Your task to perform on an android device: uninstall "Skype" Image 0: 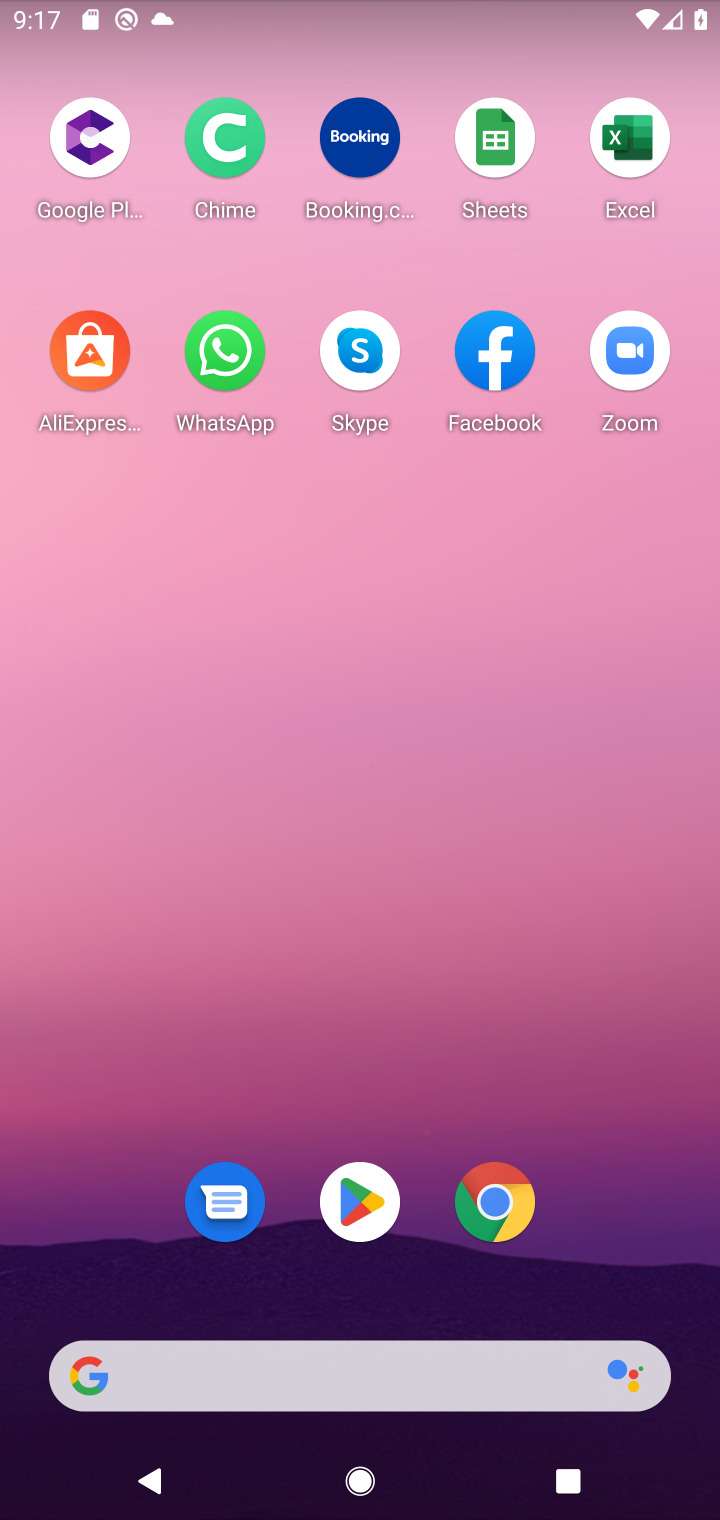
Step 0: press home button
Your task to perform on an android device: uninstall "Skype" Image 1: 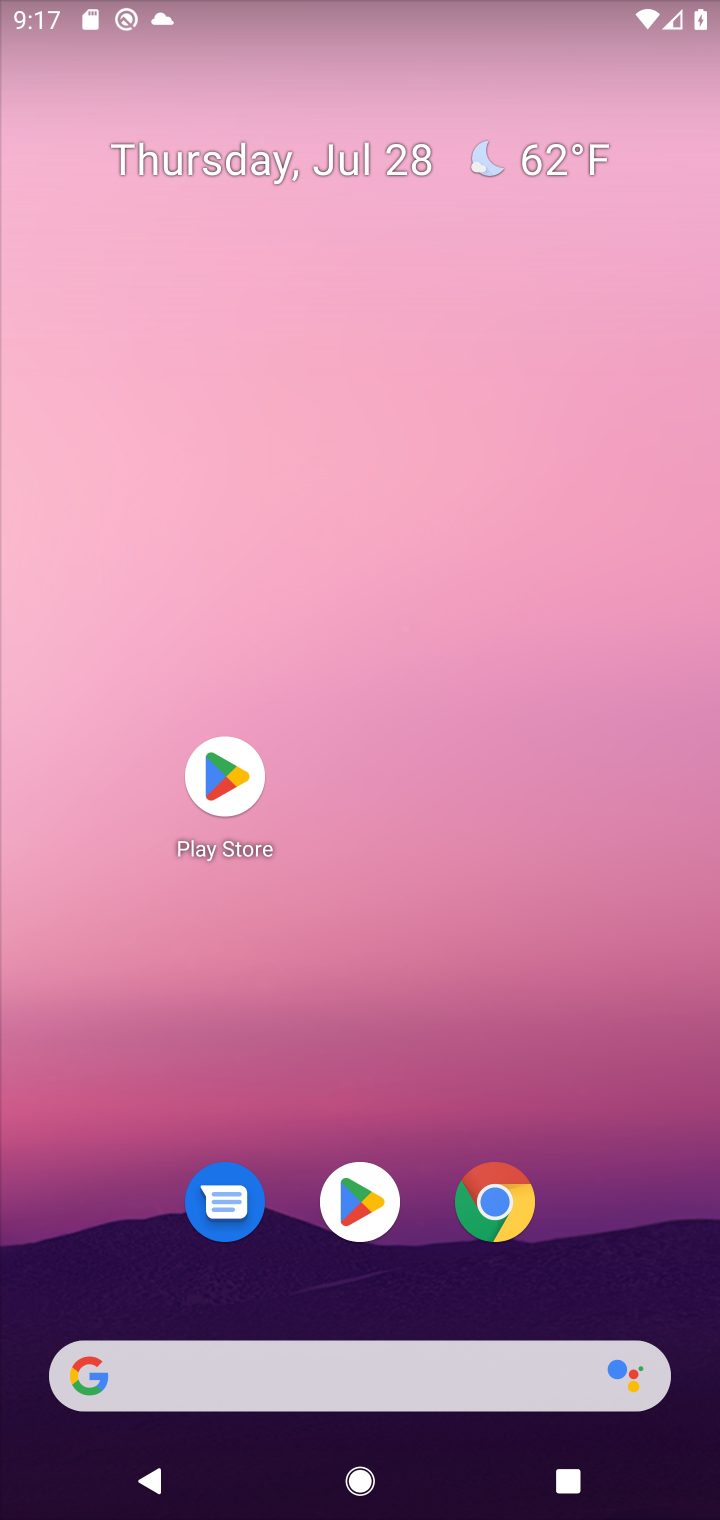
Step 1: click (351, 1202)
Your task to perform on an android device: uninstall "Skype" Image 2: 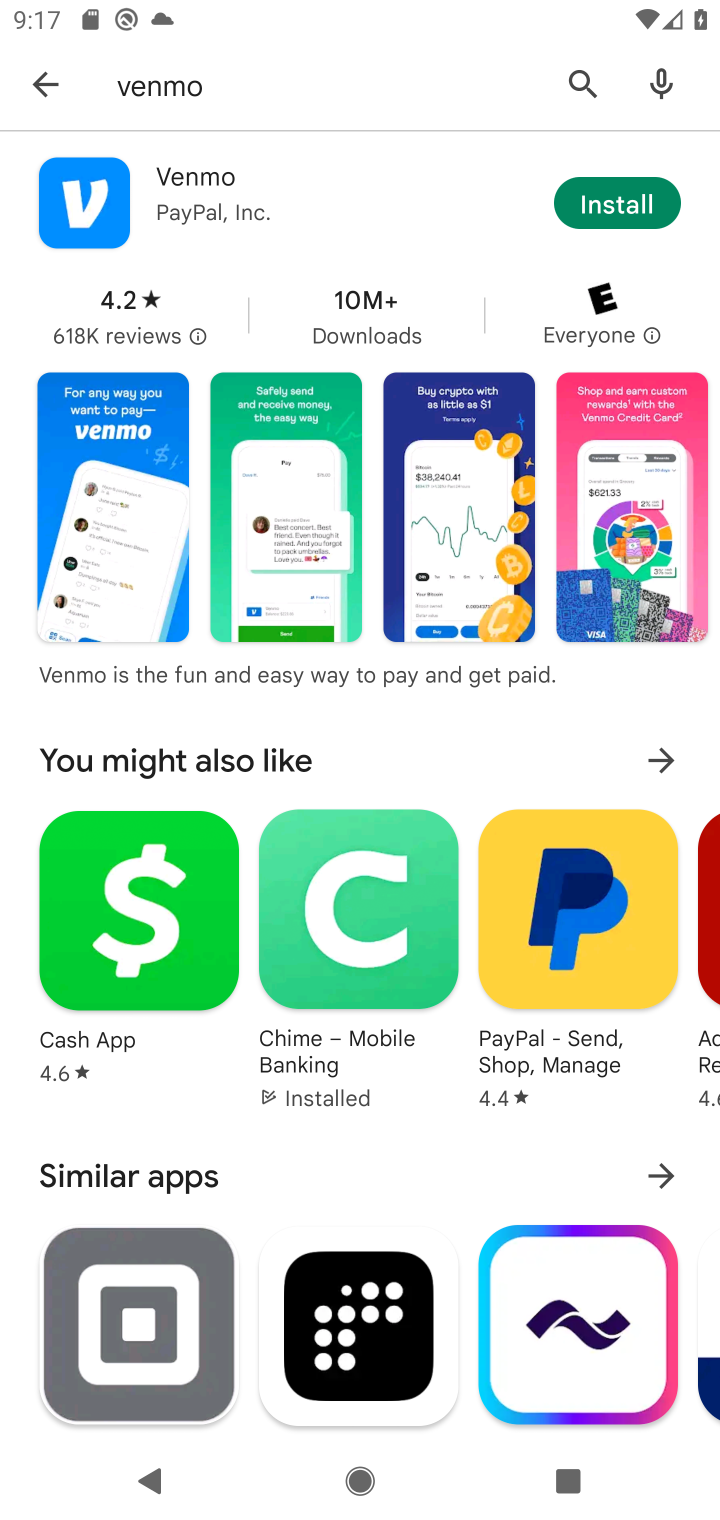
Step 2: click (572, 71)
Your task to perform on an android device: uninstall "Skype" Image 3: 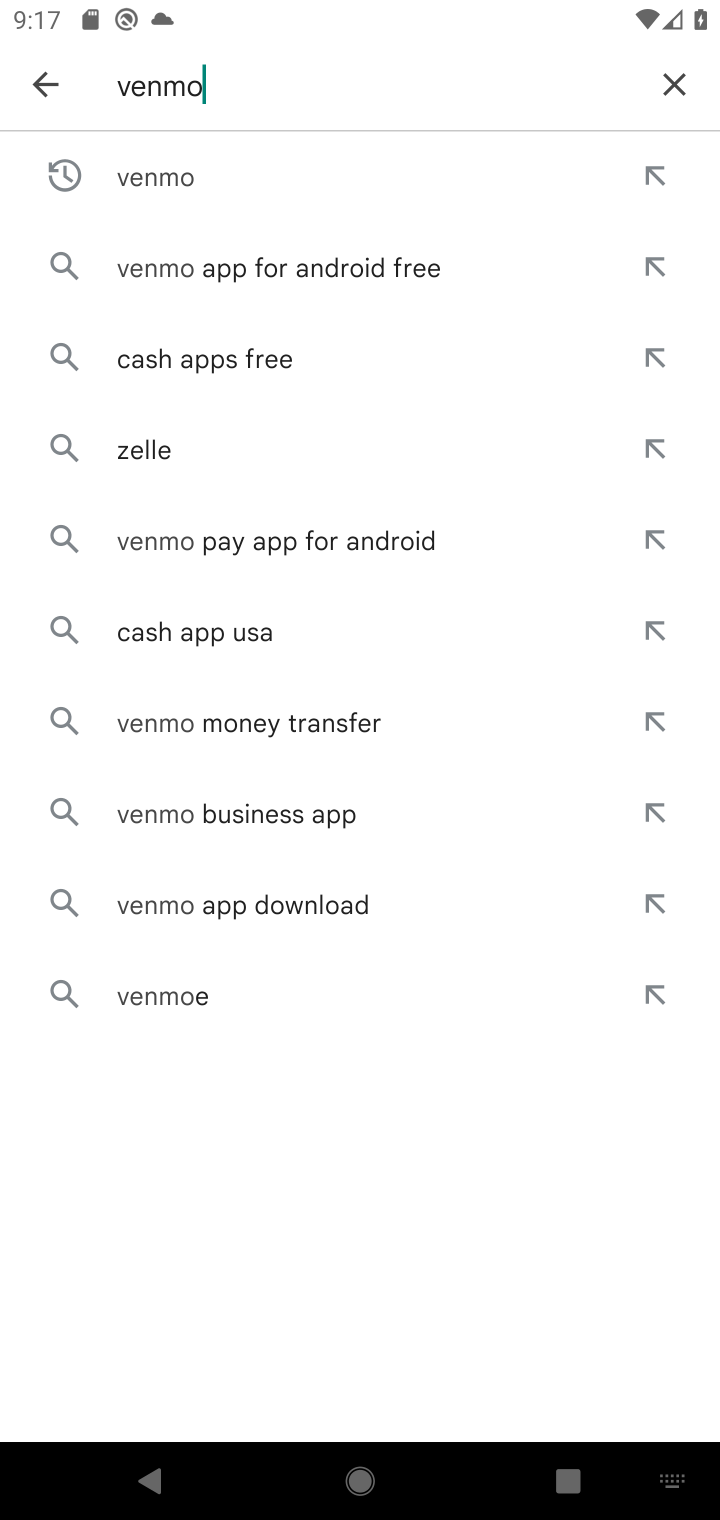
Step 3: click (668, 76)
Your task to perform on an android device: uninstall "Skype" Image 4: 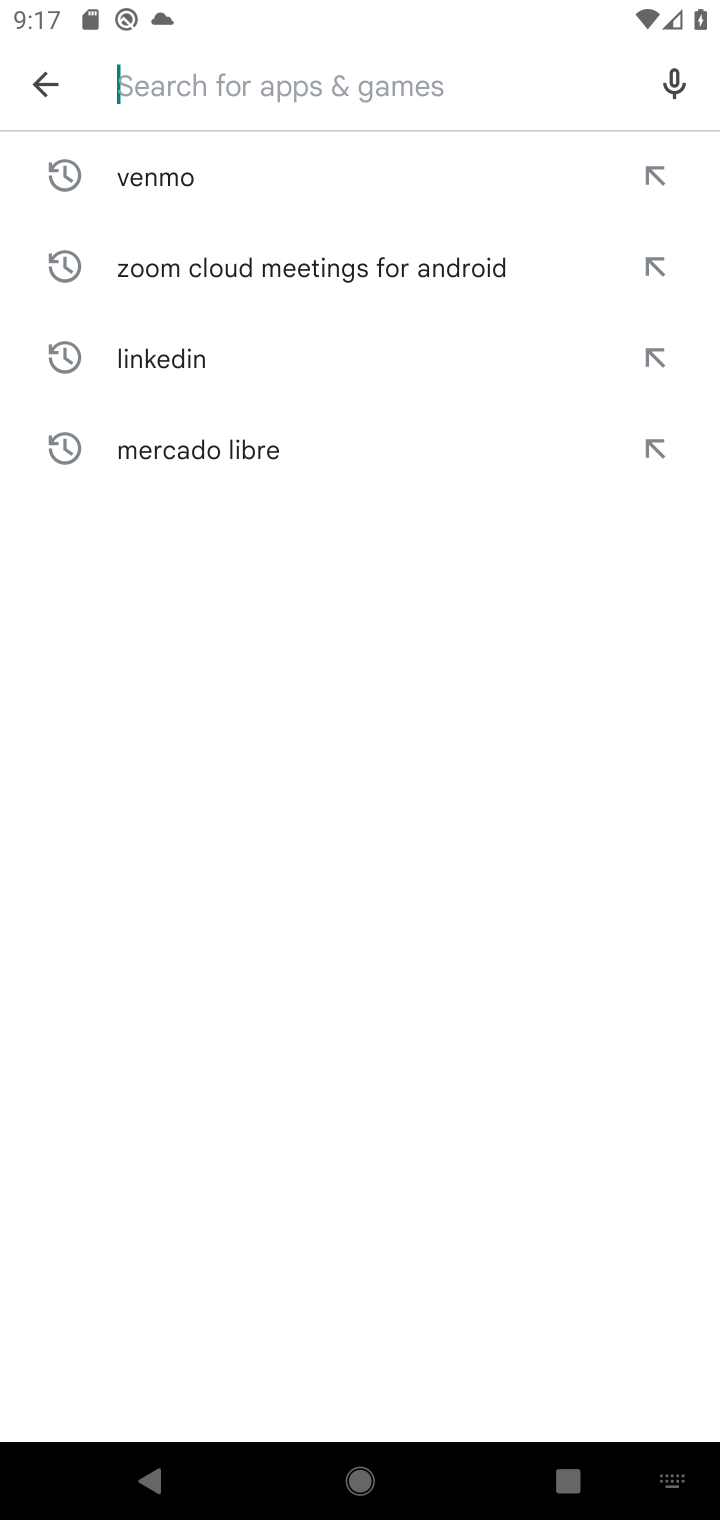
Step 4: click (289, 85)
Your task to perform on an android device: uninstall "Skype" Image 5: 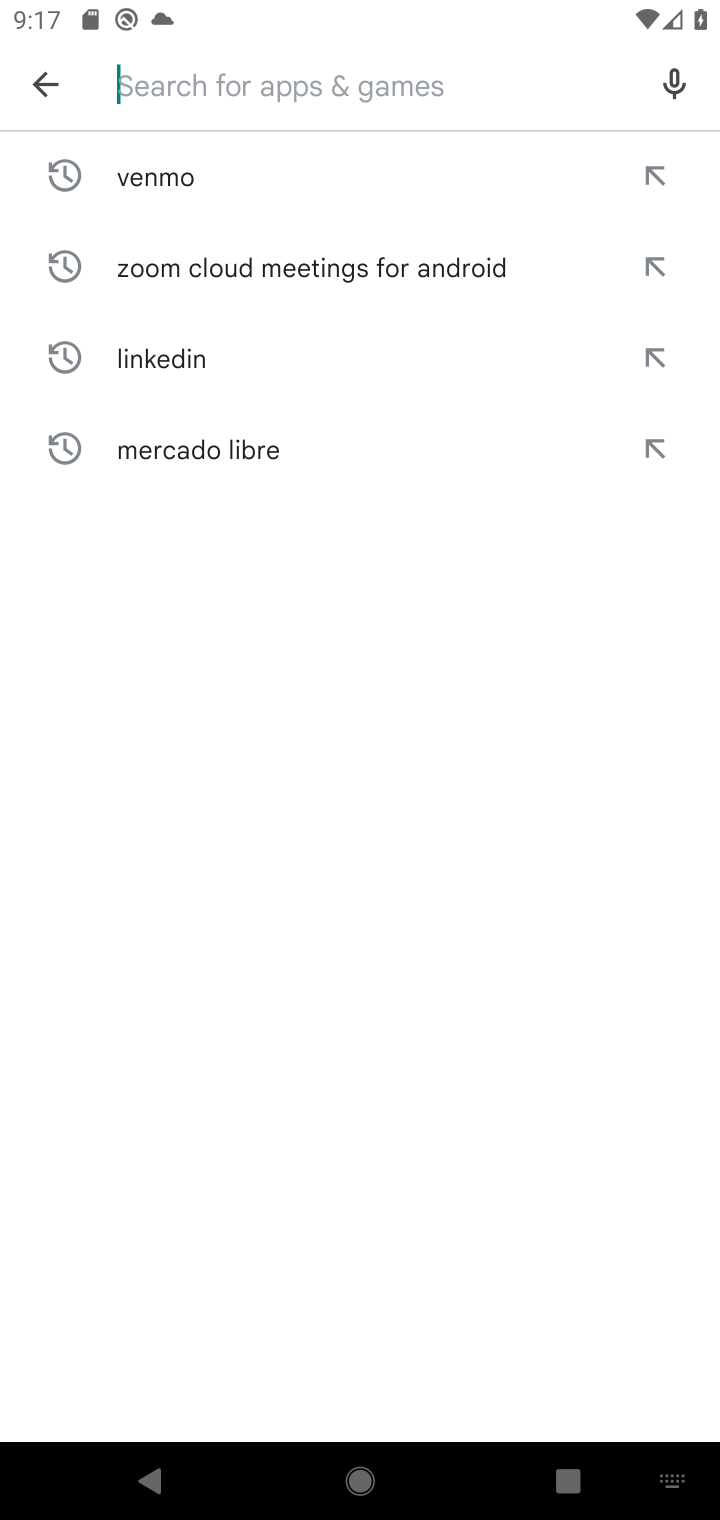
Step 5: type "skype"
Your task to perform on an android device: uninstall "Skype" Image 6: 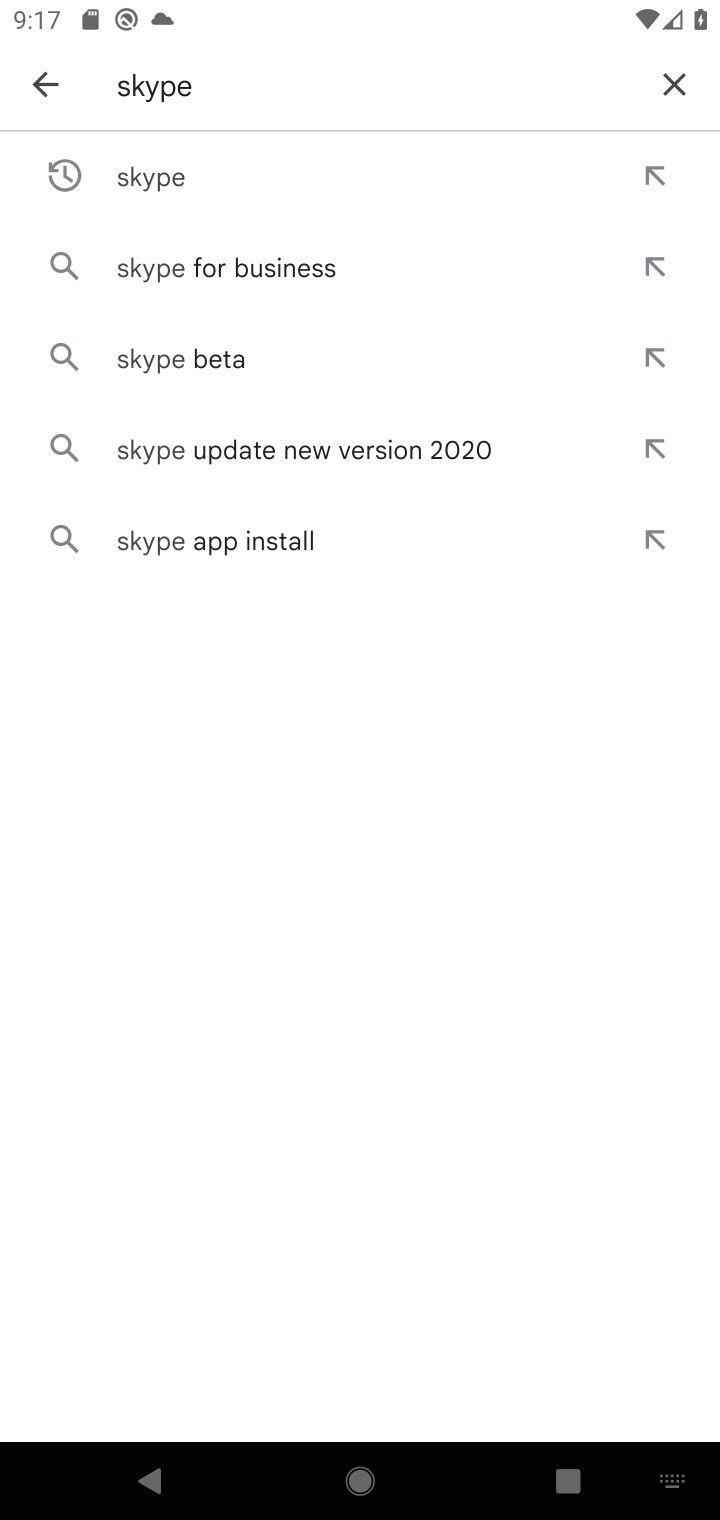
Step 6: click (138, 170)
Your task to perform on an android device: uninstall "Skype" Image 7: 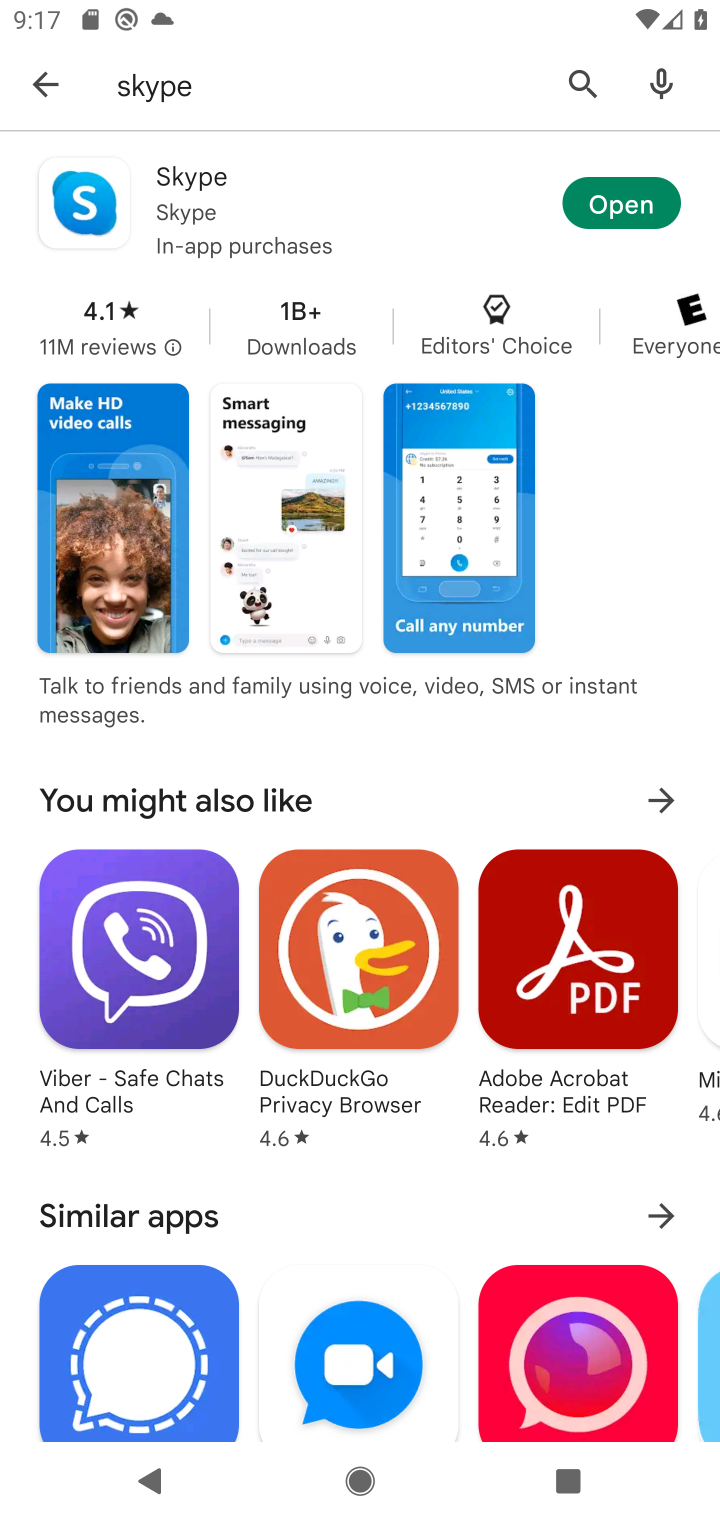
Step 7: click (166, 177)
Your task to perform on an android device: uninstall "Skype" Image 8: 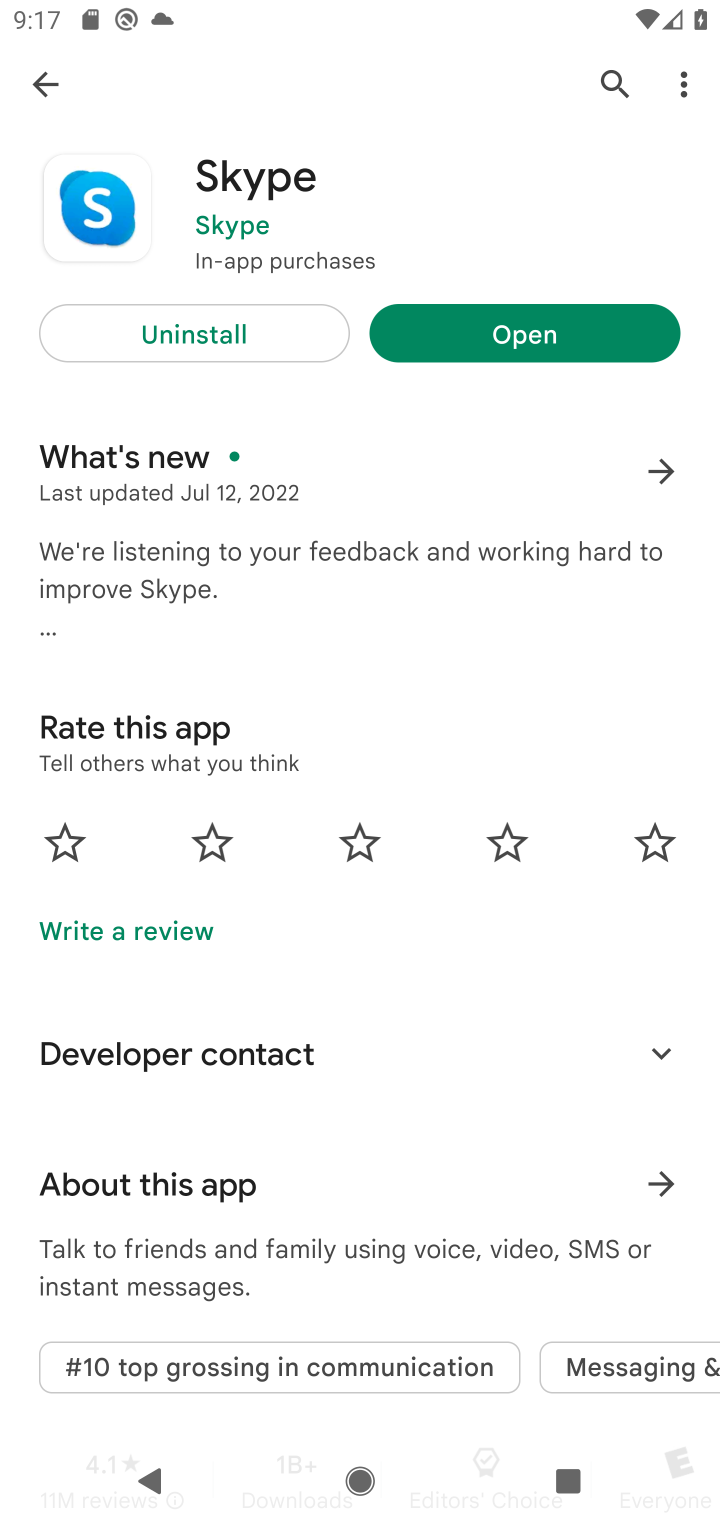
Step 8: click (201, 337)
Your task to perform on an android device: uninstall "Skype" Image 9: 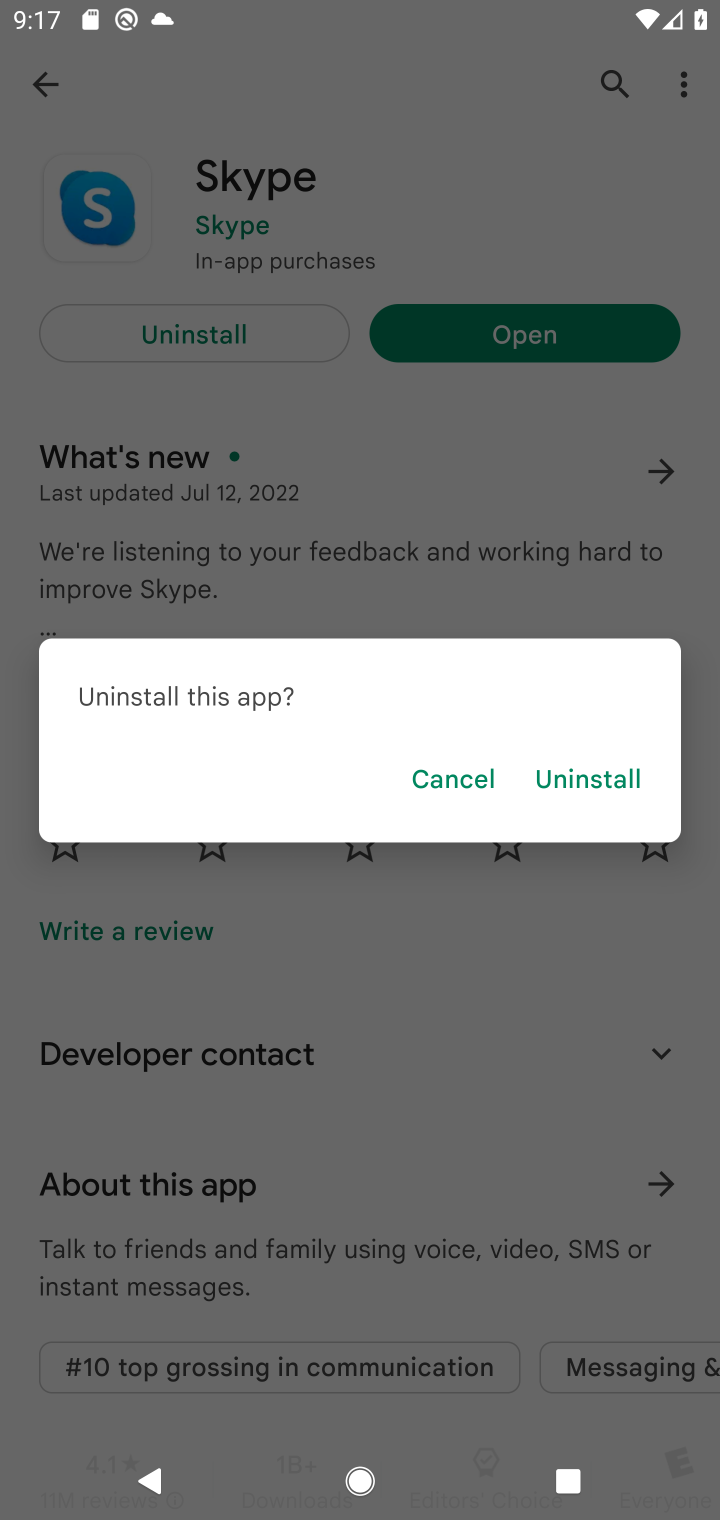
Step 9: click (572, 780)
Your task to perform on an android device: uninstall "Skype" Image 10: 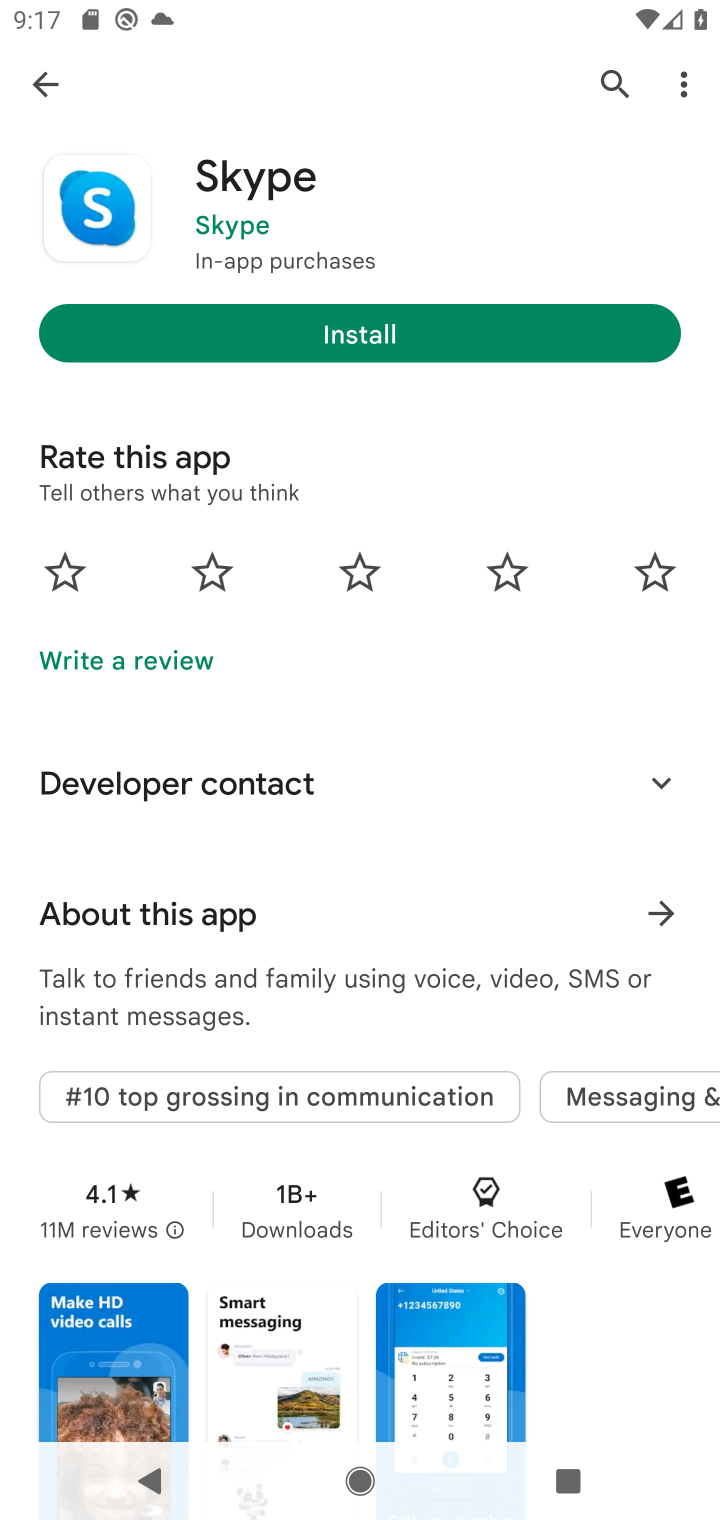
Step 10: task complete